Your task to perform on an android device: install app "LinkedIn" Image 0: 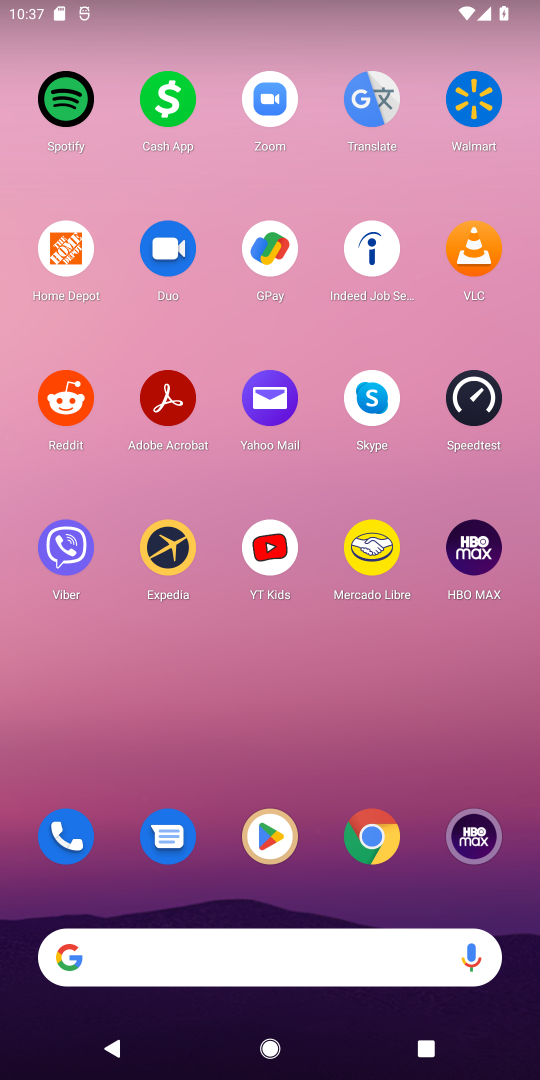
Step 0: click (283, 842)
Your task to perform on an android device: install app "LinkedIn" Image 1: 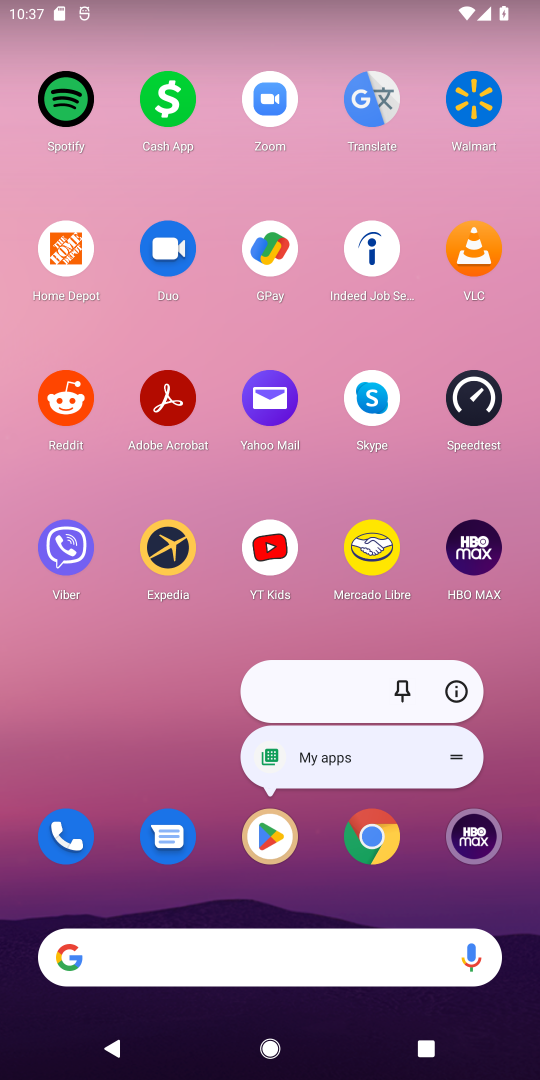
Step 1: click (283, 842)
Your task to perform on an android device: install app "LinkedIn" Image 2: 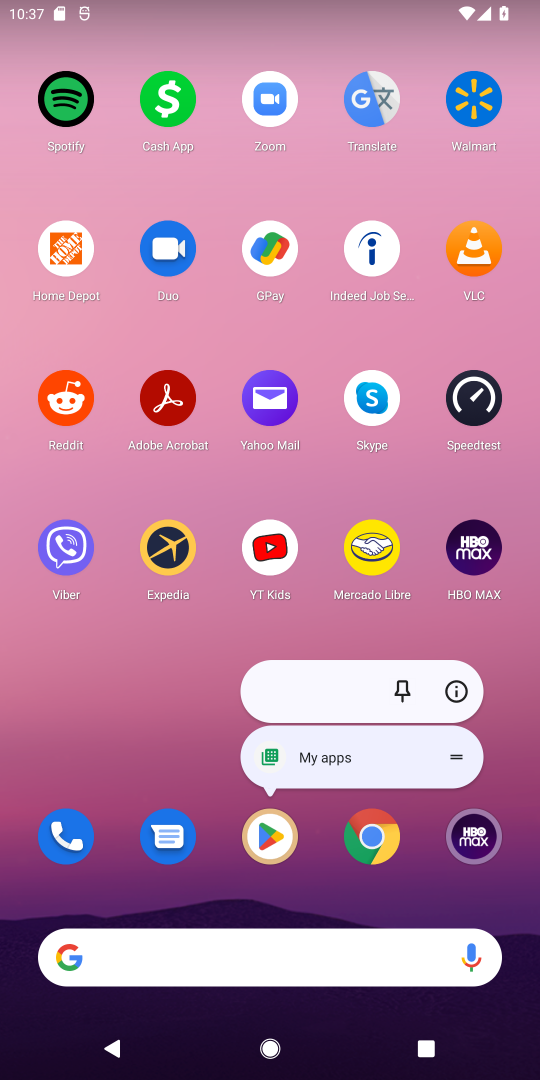
Step 2: click (256, 858)
Your task to perform on an android device: install app "LinkedIn" Image 3: 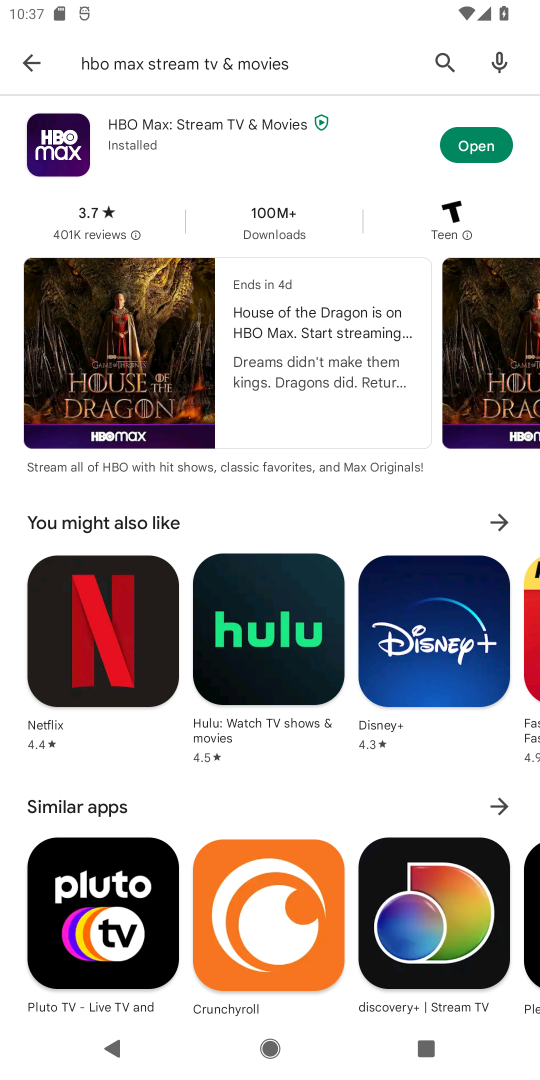
Step 3: click (439, 68)
Your task to perform on an android device: install app "LinkedIn" Image 4: 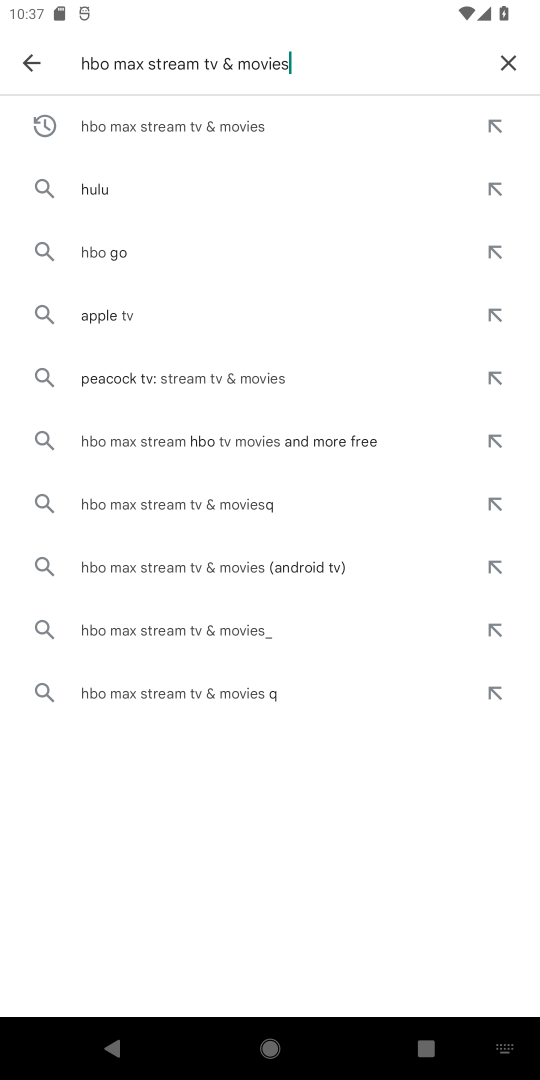
Step 4: click (493, 61)
Your task to perform on an android device: install app "LinkedIn" Image 5: 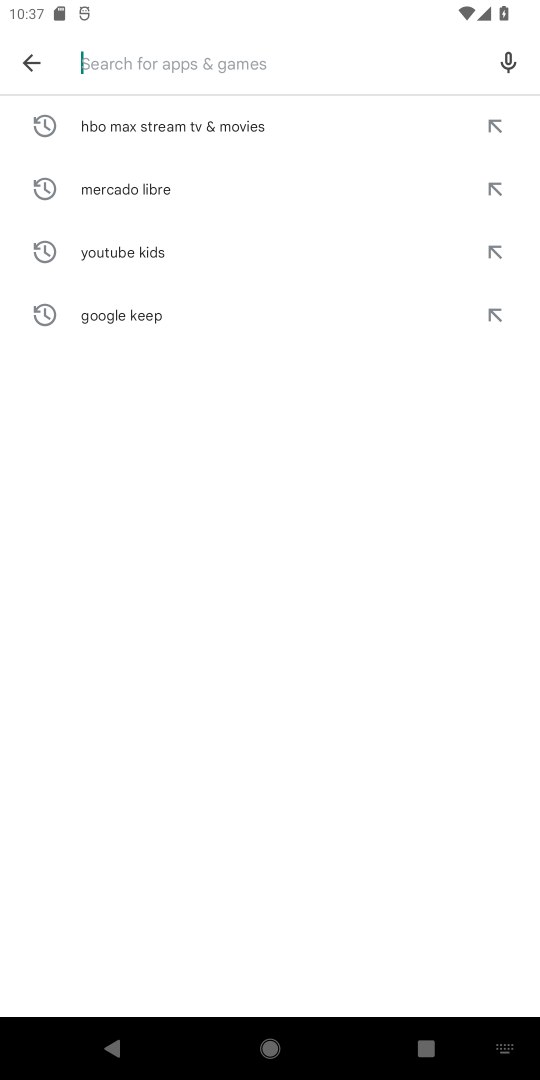
Step 5: type "LinkedIn"
Your task to perform on an android device: install app "LinkedIn" Image 6: 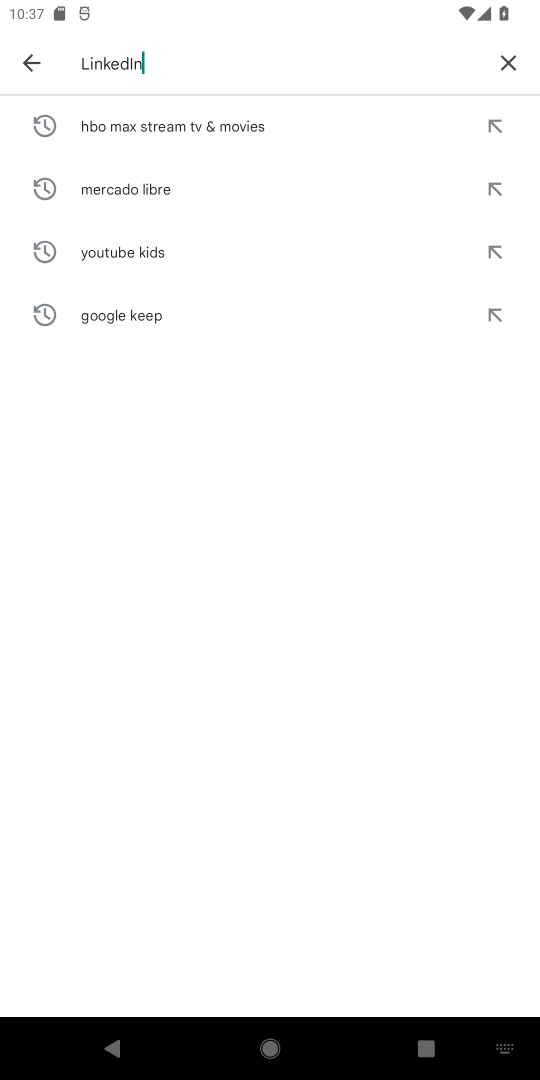
Step 6: type ""
Your task to perform on an android device: install app "LinkedIn" Image 7: 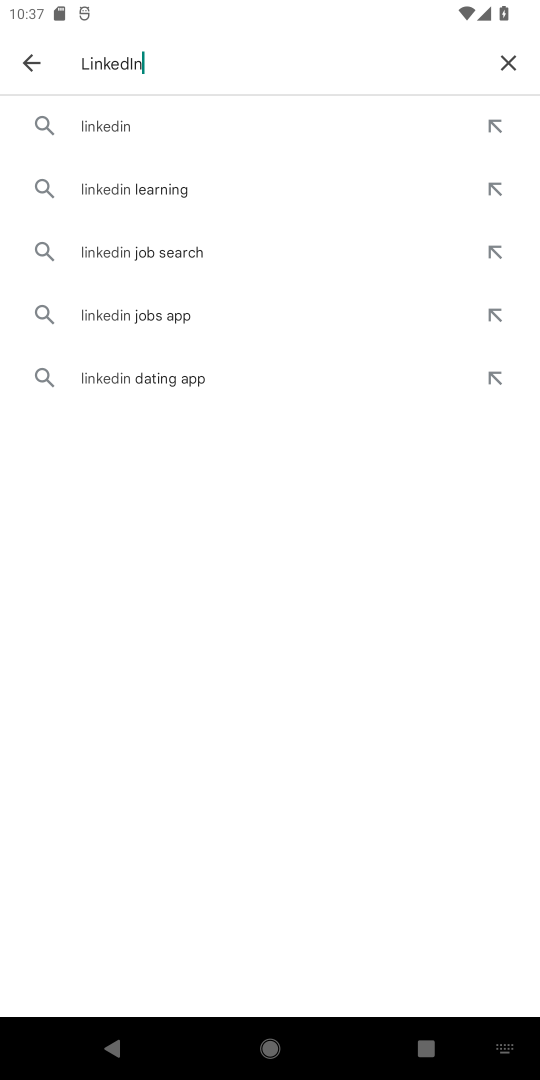
Step 7: click (147, 121)
Your task to perform on an android device: install app "LinkedIn" Image 8: 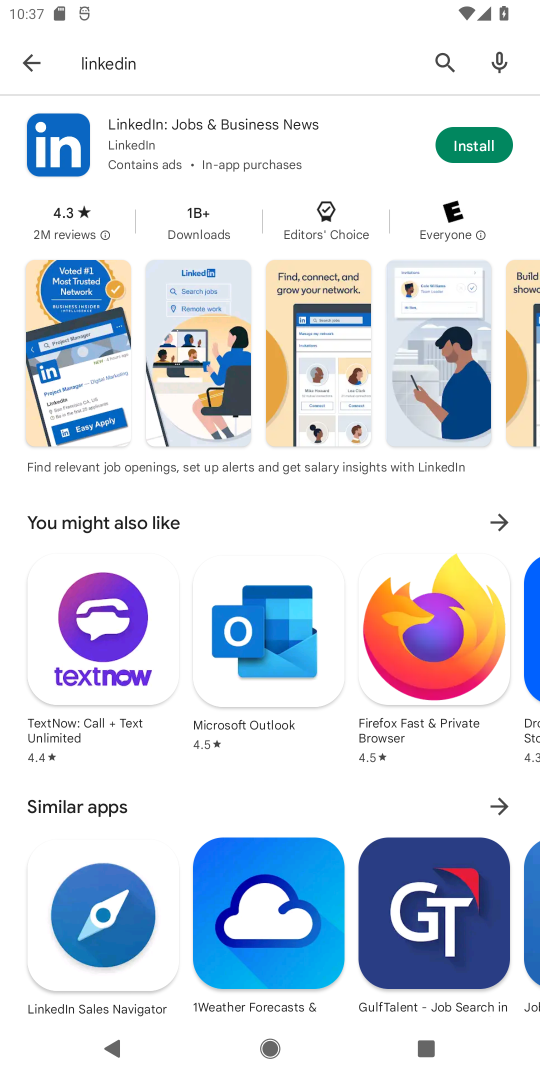
Step 8: click (456, 153)
Your task to perform on an android device: install app "LinkedIn" Image 9: 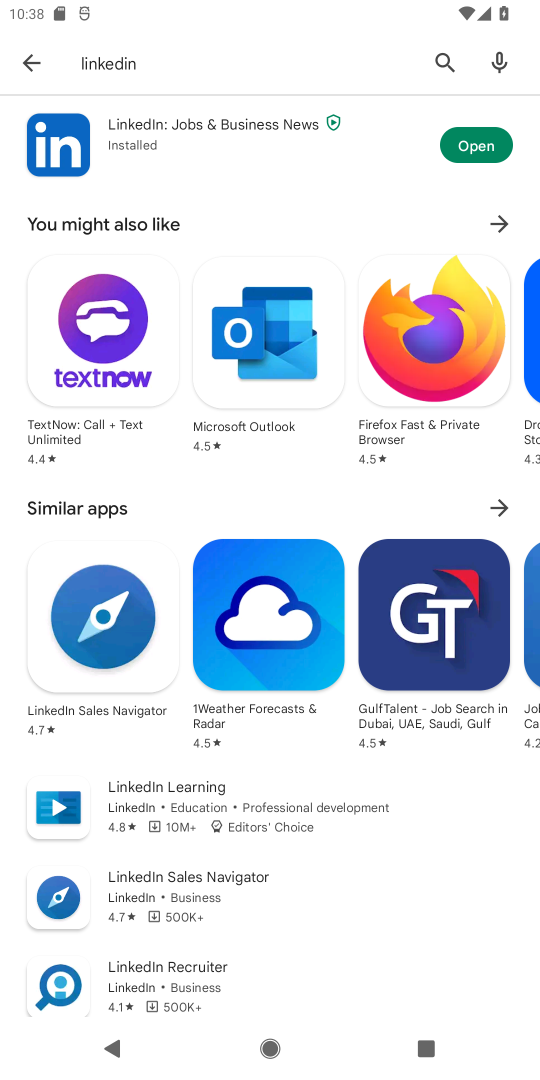
Step 9: task complete